Your task to perform on an android device: toggle location history Image 0: 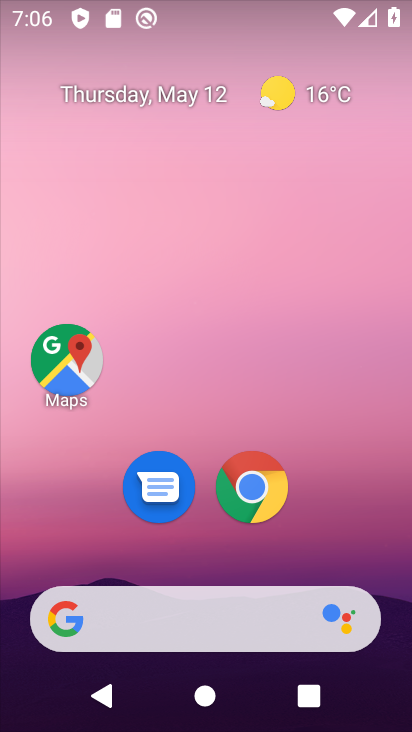
Step 0: drag from (344, 469) to (296, 3)
Your task to perform on an android device: toggle location history Image 1: 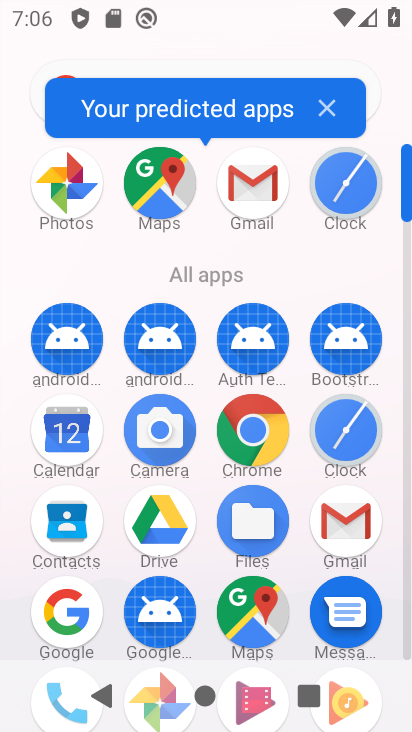
Step 1: drag from (396, 630) to (378, 180)
Your task to perform on an android device: toggle location history Image 2: 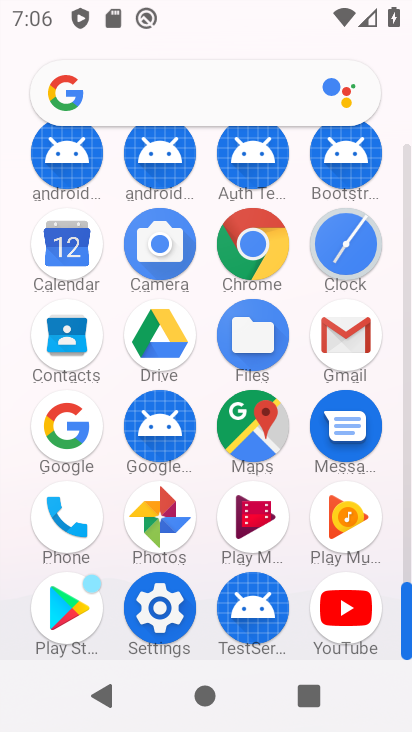
Step 2: click (165, 606)
Your task to perform on an android device: toggle location history Image 3: 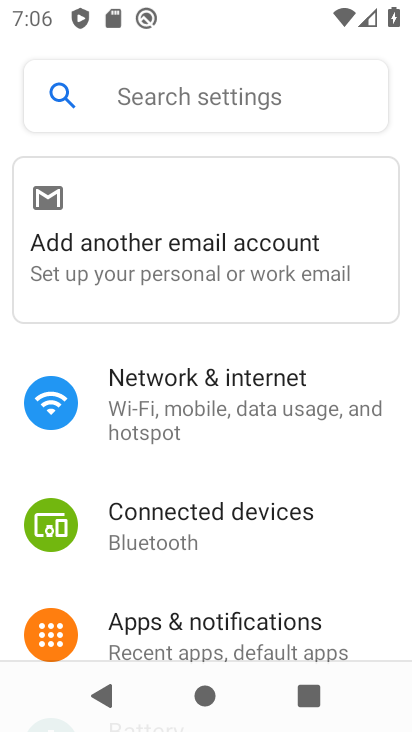
Step 3: drag from (232, 539) to (263, 115)
Your task to perform on an android device: toggle location history Image 4: 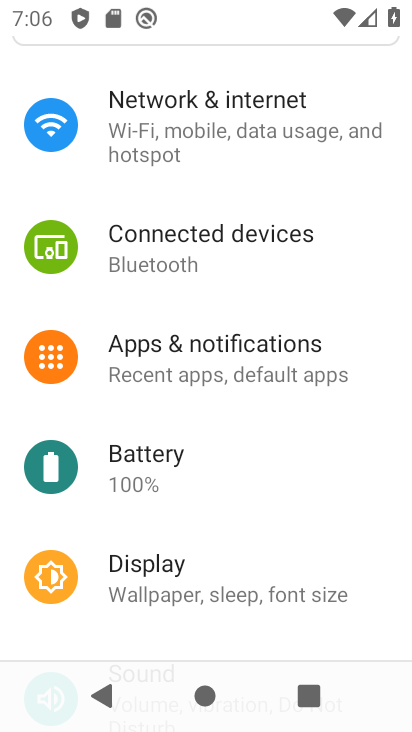
Step 4: drag from (231, 532) to (279, 93)
Your task to perform on an android device: toggle location history Image 5: 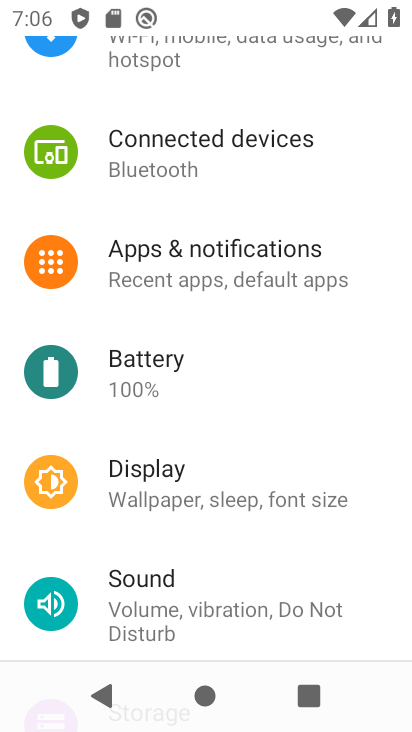
Step 5: drag from (210, 555) to (265, 157)
Your task to perform on an android device: toggle location history Image 6: 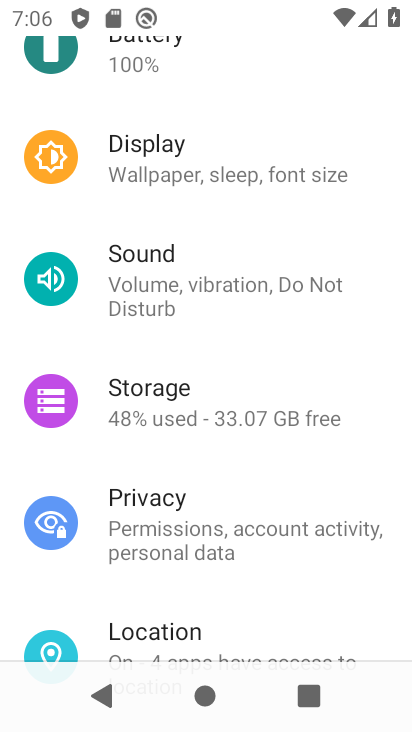
Step 6: drag from (218, 451) to (198, 76)
Your task to perform on an android device: toggle location history Image 7: 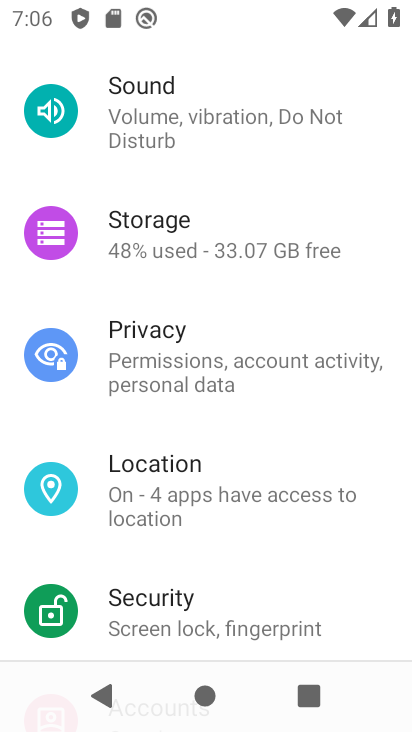
Step 7: click (179, 467)
Your task to perform on an android device: toggle location history Image 8: 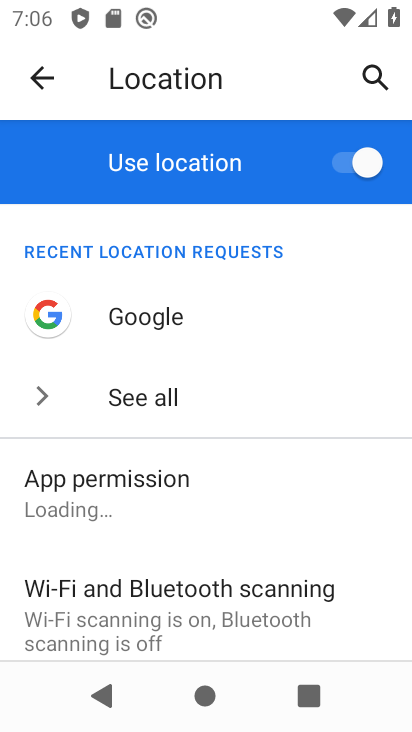
Step 8: drag from (154, 597) to (195, 339)
Your task to perform on an android device: toggle location history Image 9: 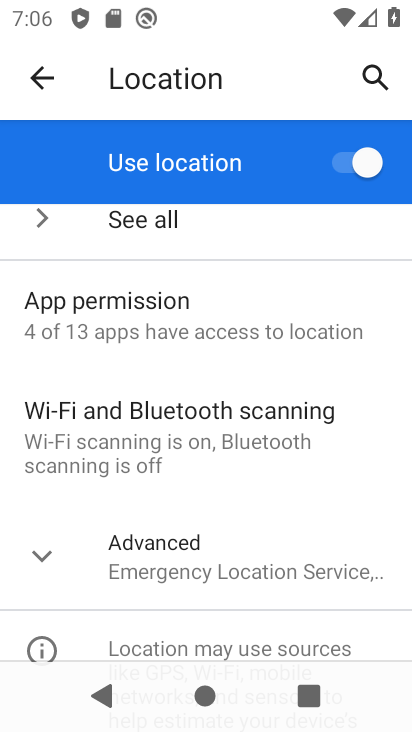
Step 9: click (184, 558)
Your task to perform on an android device: toggle location history Image 10: 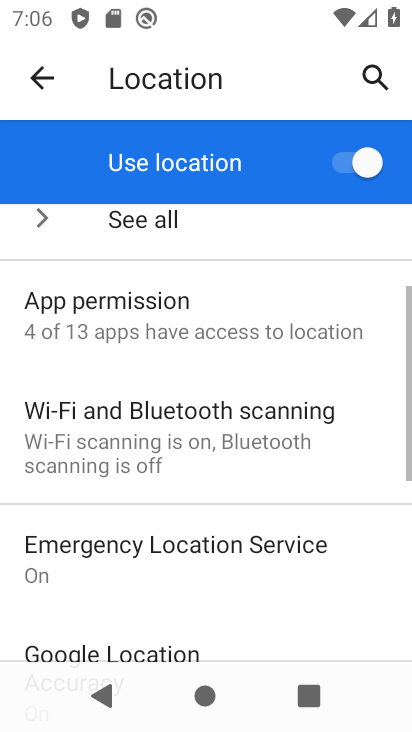
Step 10: drag from (186, 588) to (235, 258)
Your task to perform on an android device: toggle location history Image 11: 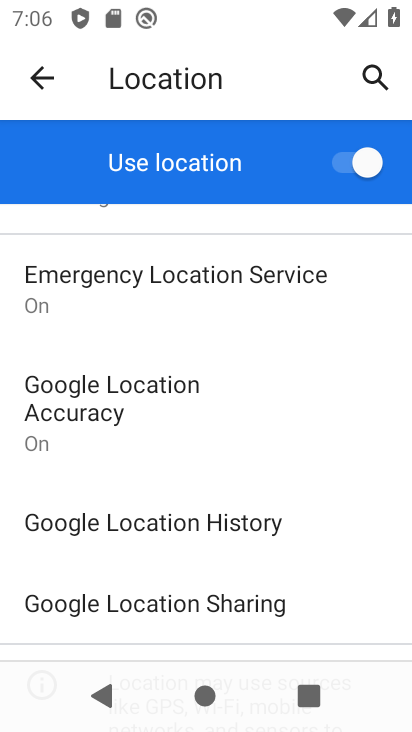
Step 11: drag from (179, 559) to (236, 323)
Your task to perform on an android device: toggle location history Image 12: 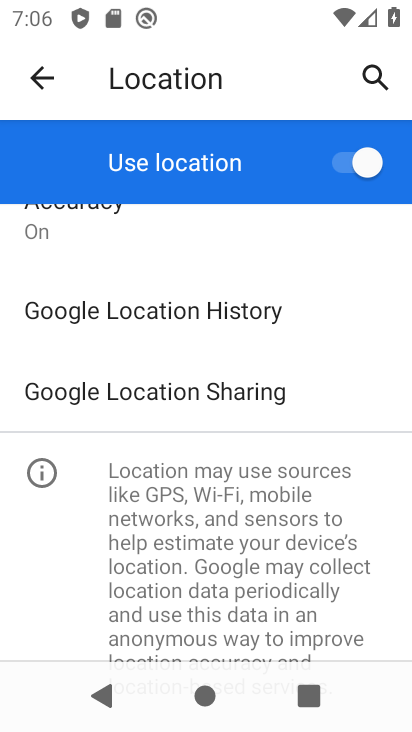
Step 12: click (204, 310)
Your task to perform on an android device: toggle location history Image 13: 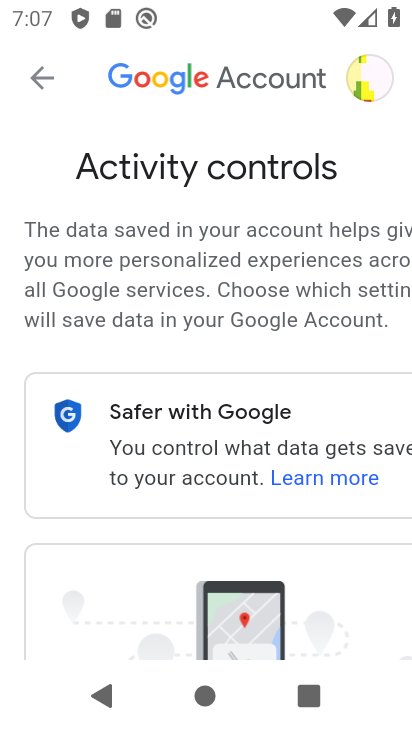
Step 13: drag from (241, 556) to (223, 160)
Your task to perform on an android device: toggle location history Image 14: 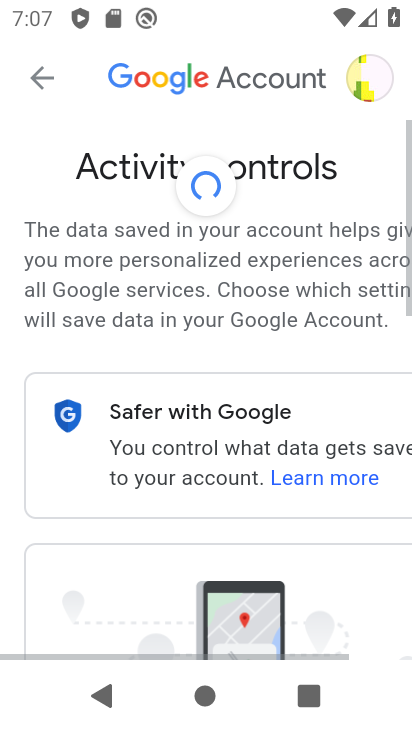
Step 14: drag from (237, 570) to (212, 186)
Your task to perform on an android device: toggle location history Image 15: 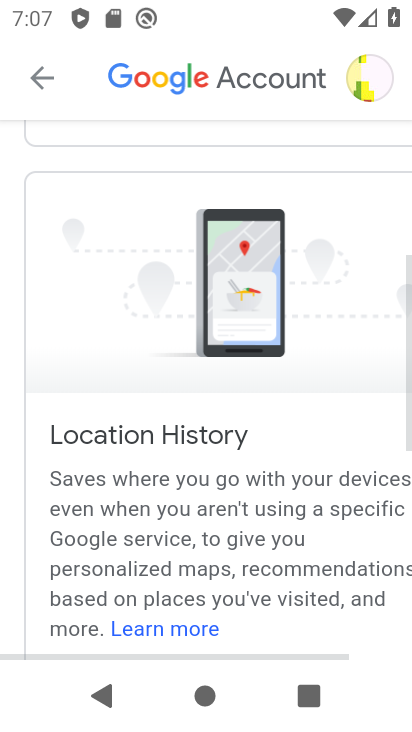
Step 15: drag from (180, 530) to (194, 175)
Your task to perform on an android device: toggle location history Image 16: 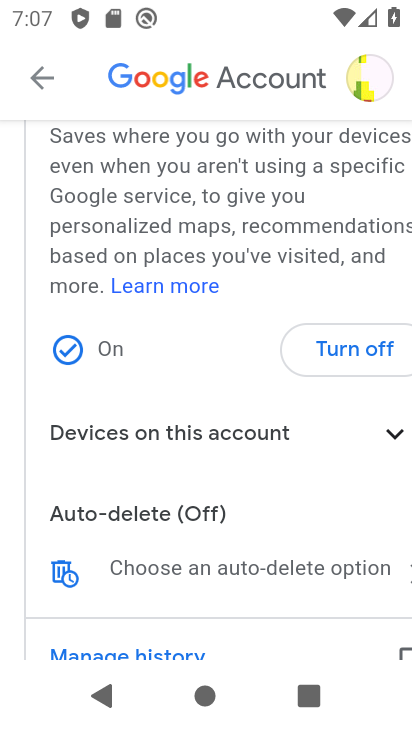
Step 16: drag from (197, 551) to (191, 361)
Your task to perform on an android device: toggle location history Image 17: 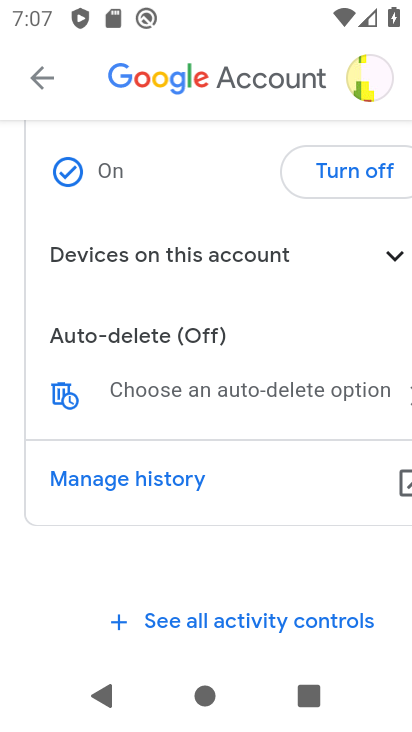
Step 17: click (357, 177)
Your task to perform on an android device: toggle location history Image 18: 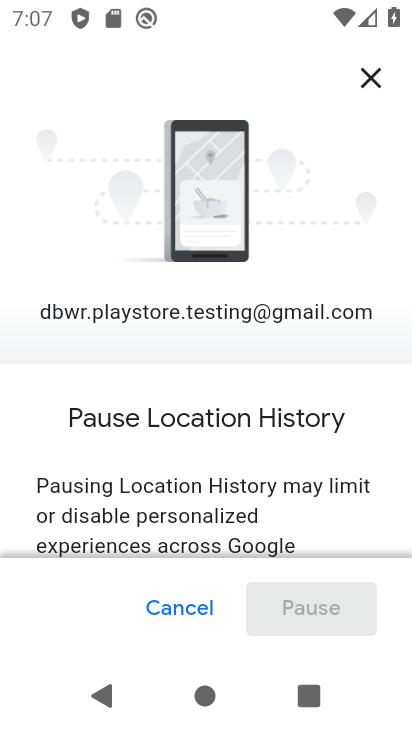
Step 18: drag from (307, 511) to (276, 100)
Your task to perform on an android device: toggle location history Image 19: 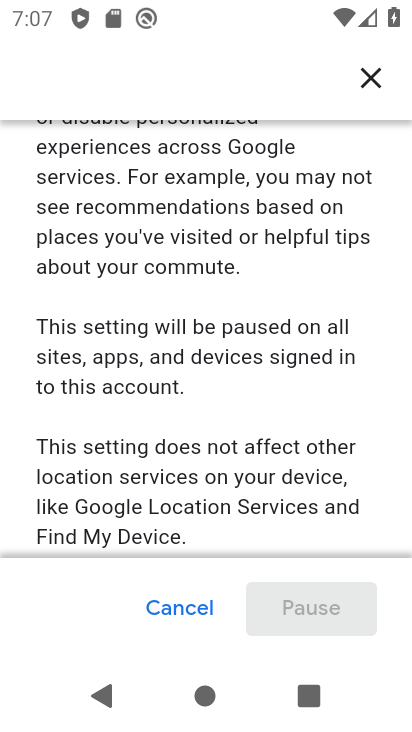
Step 19: drag from (230, 492) to (265, 113)
Your task to perform on an android device: toggle location history Image 20: 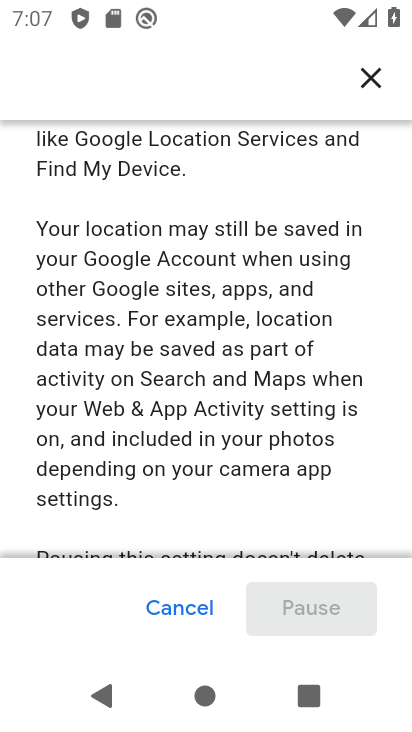
Step 20: drag from (248, 427) to (251, 111)
Your task to perform on an android device: toggle location history Image 21: 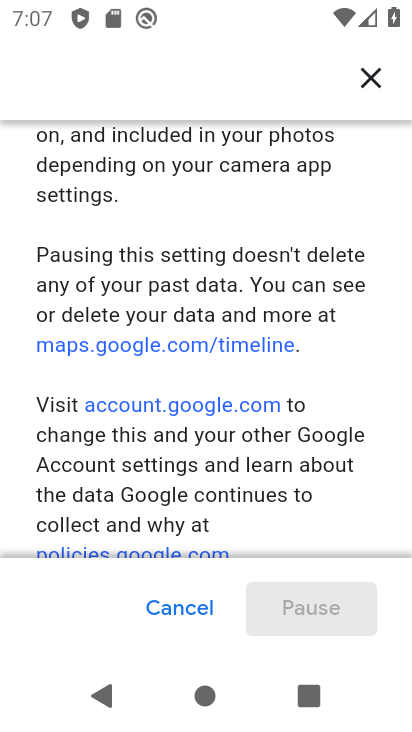
Step 21: drag from (240, 430) to (255, 117)
Your task to perform on an android device: toggle location history Image 22: 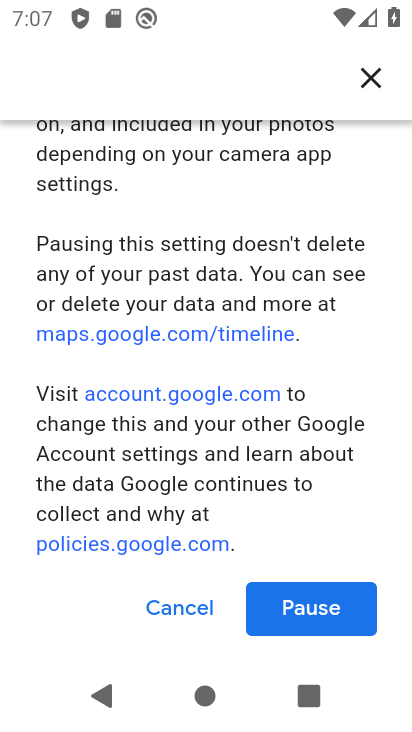
Step 22: drag from (227, 459) to (265, 248)
Your task to perform on an android device: toggle location history Image 23: 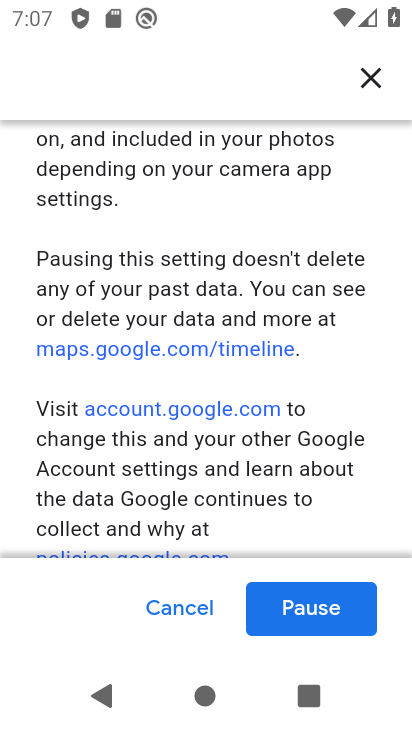
Step 23: click (326, 597)
Your task to perform on an android device: toggle location history Image 24: 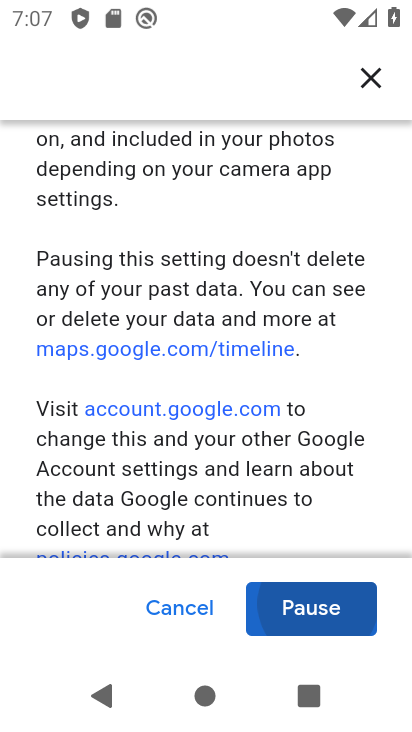
Step 24: click (310, 613)
Your task to perform on an android device: toggle location history Image 25: 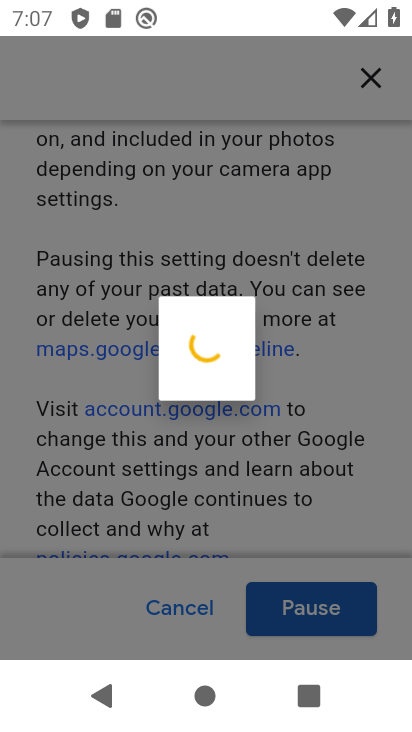
Step 25: click (310, 613)
Your task to perform on an android device: toggle location history Image 26: 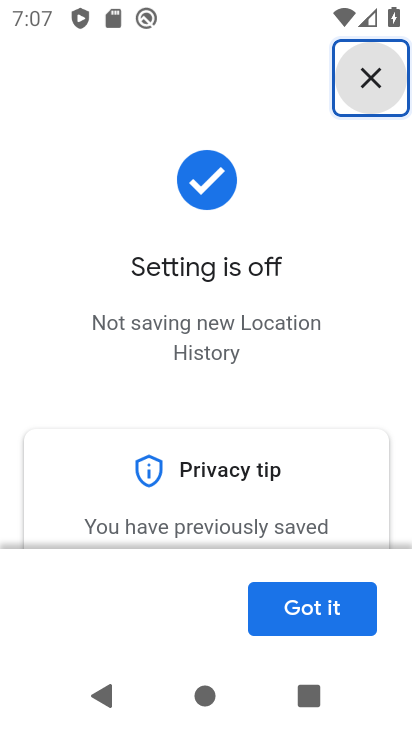
Step 26: task complete